Your task to perform on an android device: Go to privacy settings Image 0: 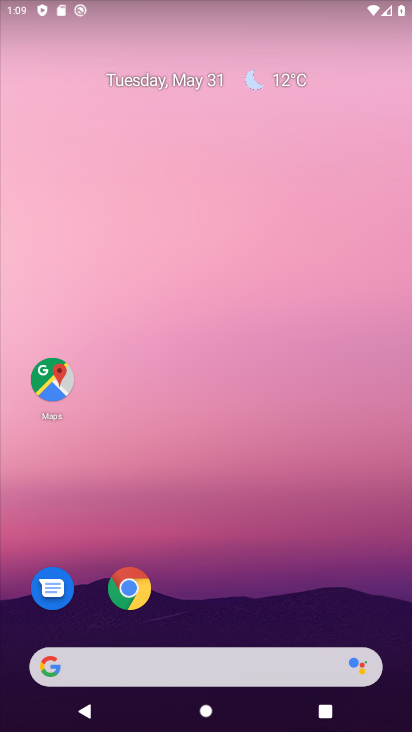
Step 0: click (128, 586)
Your task to perform on an android device: Go to privacy settings Image 1: 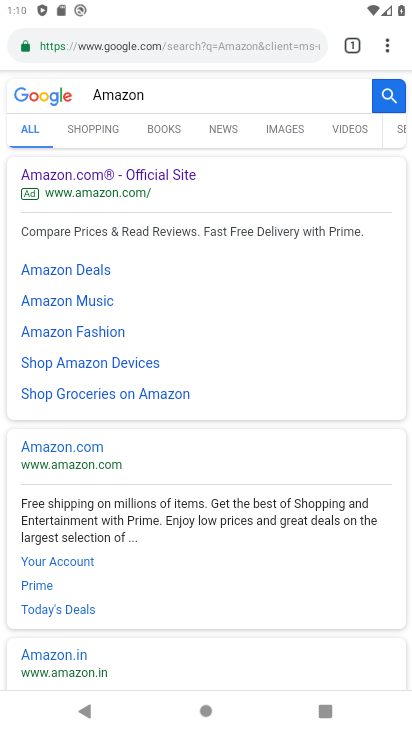
Step 1: click (386, 43)
Your task to perform on an android device: Go to privacy settings Image 2: 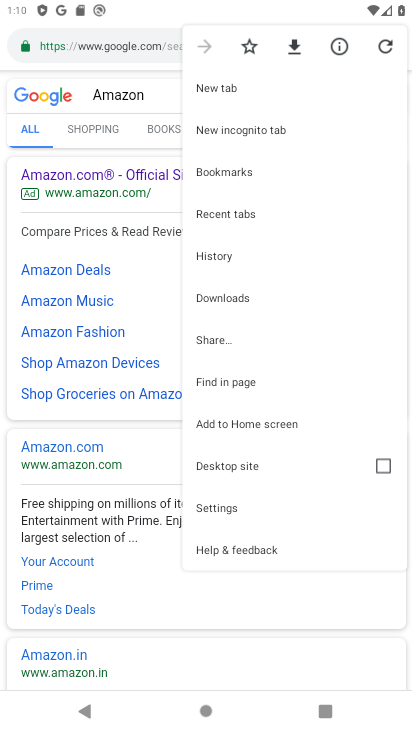
Step 2: click (230, 505)
Your task to perform on an android device: Go to privacy settings Image 3: 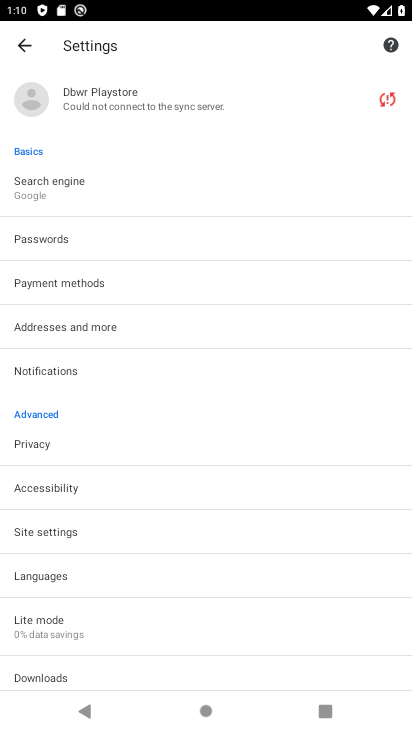
Step 3: click (35, 433)
Your task to perform on an android device: Go to privacy settings Image 4: 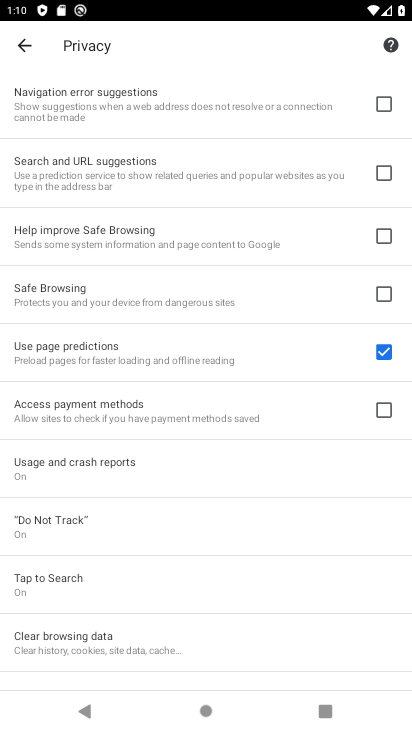
Step 4: task complete